Your task to perform on an android device: Go to Yahoo.com Image 0: 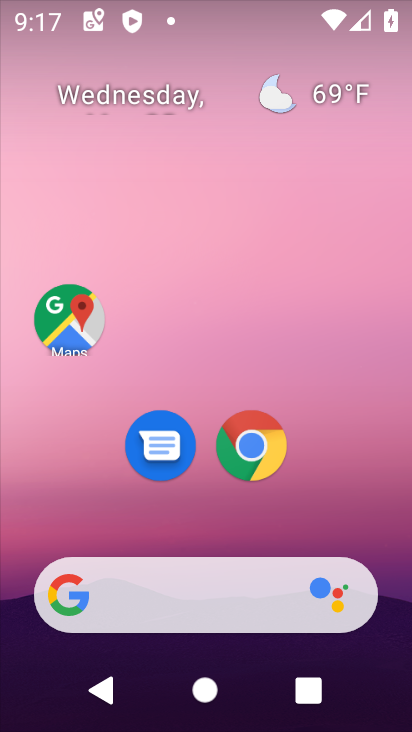
Step 0: click (250, 436)
Your task to perform on an android device: Go to Yahoo.com Image 1: 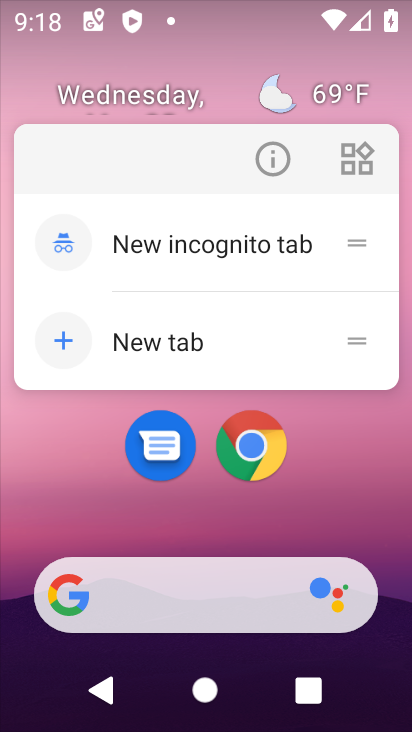
Step 1: click (303, 513)
Your task to perform on an android device: Go to Yahoo.com Image 2: 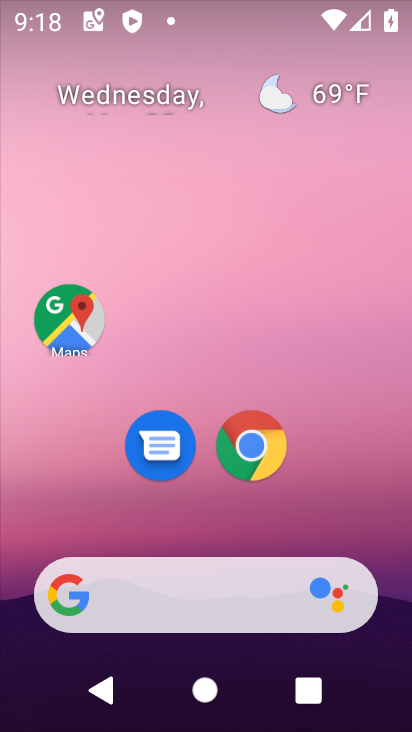
Step 2: drag from (300, 504) to (322, 165)
Your task to perform on an android device: Go to Yahoo.com Image 3: 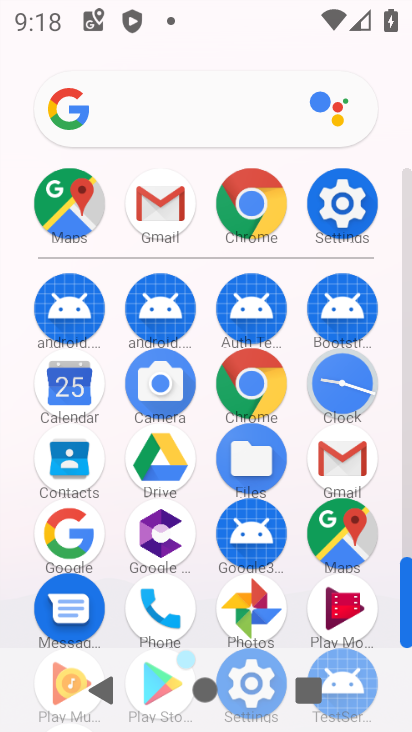
Step 3: click (247, 384)
Your task to perform on an android device: Go to Yahoo.com Image 4: 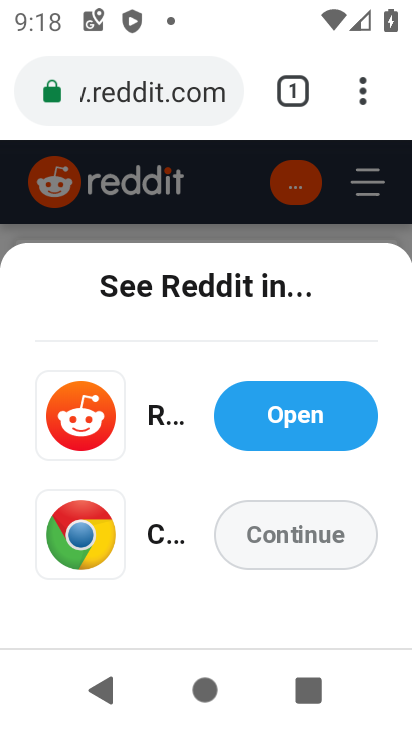
Step 4: click (115, 85)
Your task to perform on an android device: Go to Yahoo.com Image 5: 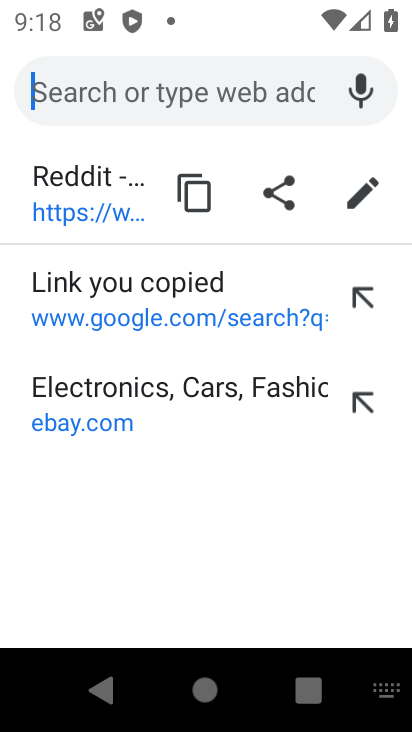
Step 5: type " Yahoo.com"
Your task to perform on an android device: Go to Yahoo.com Image 6: 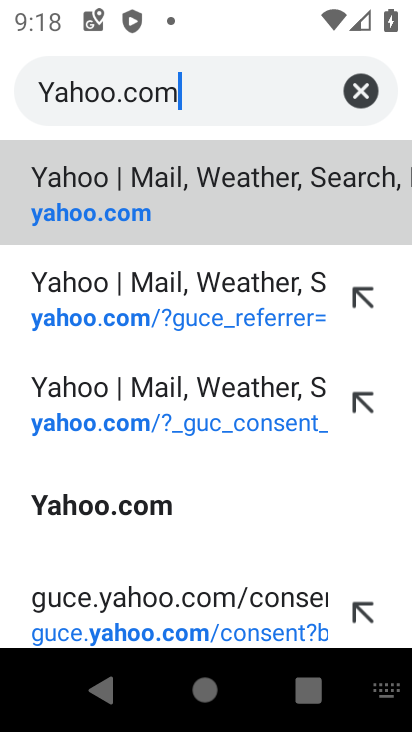
Step 6: click (128, 210)
Your task to perform on an android device: Go to Yahoo.com Image 7: 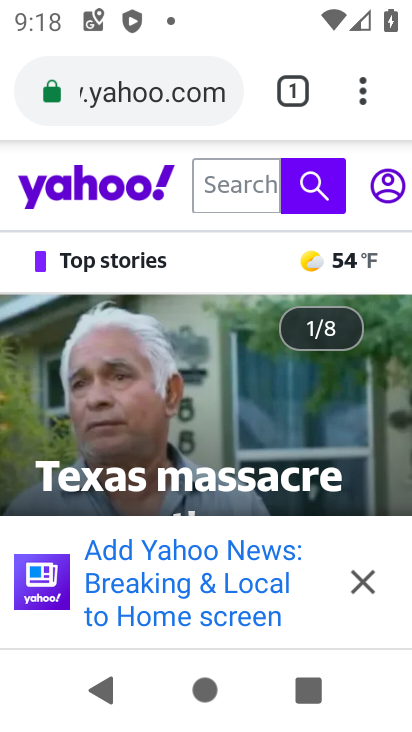
Step 7: task complete